Your task to perform on an android device: clear all cookies in the chrome app Image 0: 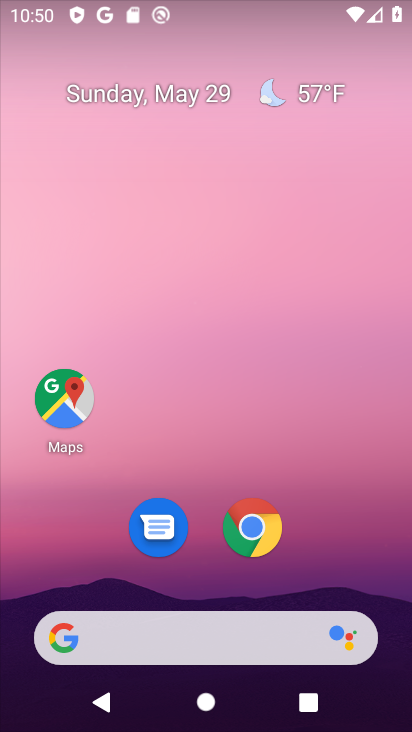
Step 0: click (254, 526)
Your task to perform on an android device: clear all cookies in the chrome app Image 1: 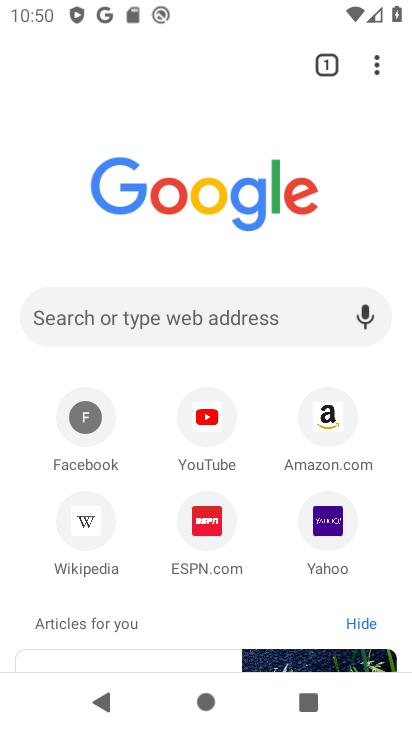
Step 1: click (377, 63)
Your task to perform on an android device: clear all cookies in the chrome app Image 2: 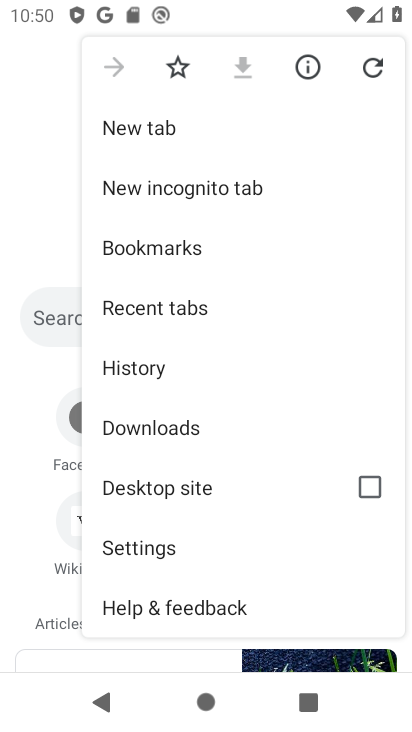
Step 2: click (165, 553)
Your task to perform on an android device: clear all cookies in the chrome app Image 3: 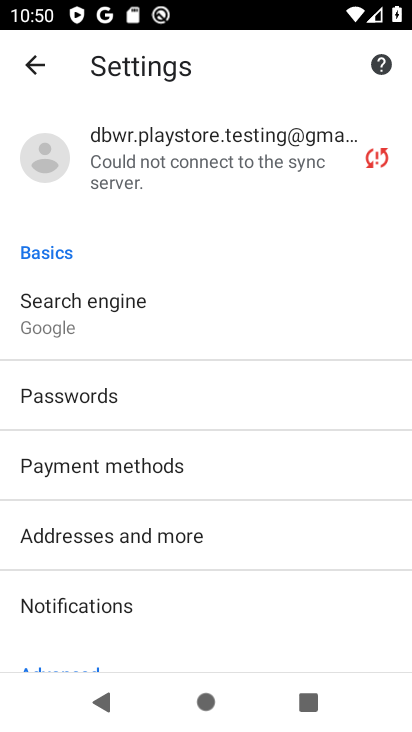
Step 3: drag from (149, 577) to (192, 470)
Your task to perform on an android device: clear all cookies in the chrome app Image 4: 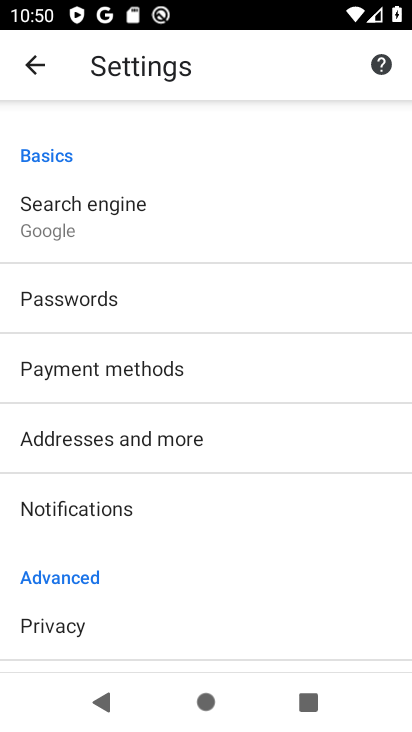
Step 4: drag from (127, 569) to (135, 407)
Your task to perform on an android device: clear all cookies in the chrome app Image 5: 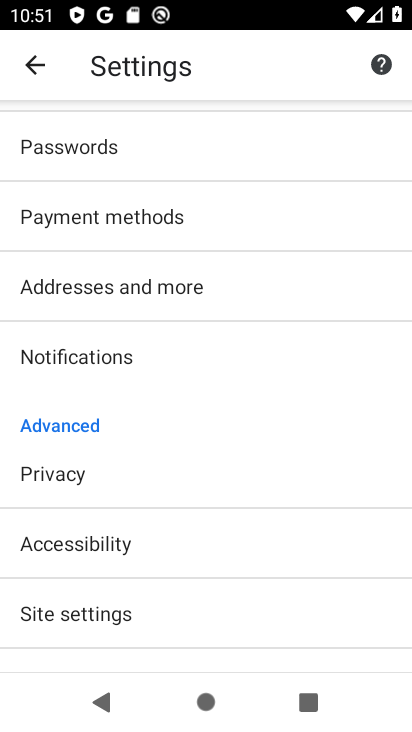
Step 5: click (71, 472)
Your task to perform on an android device: clear all cookies in the chrome app Image 6: 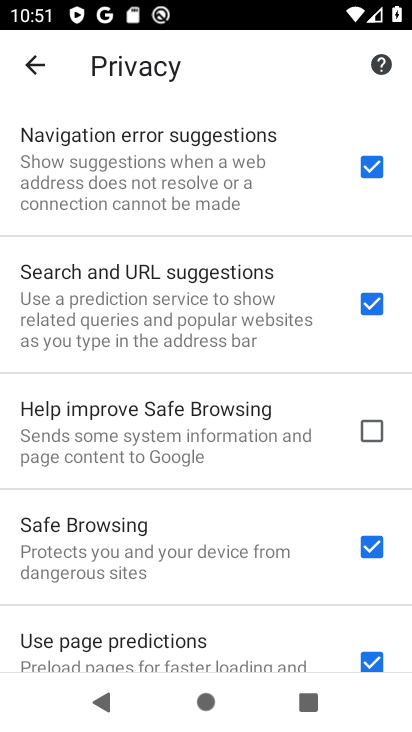
Step 6: drag from (223, 522) to (241, 410)
Your task to perform on an android device: clear all cookies in the chrome app Image 7: 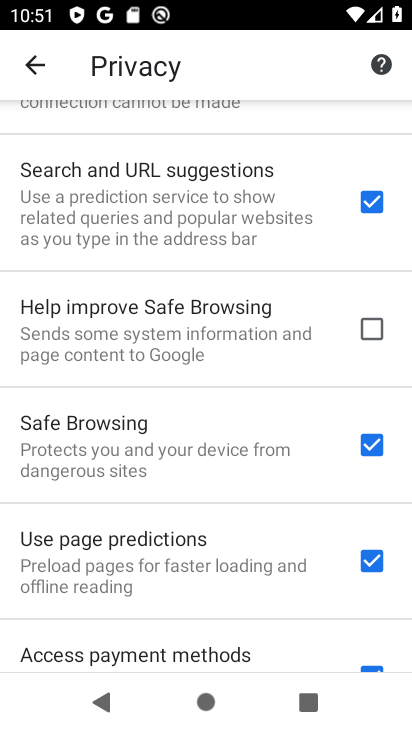
Step 7: drag from (213, 590) to (239, 488)
Your task to perform on an android device: clear all cookies in the chrome app Image 8: 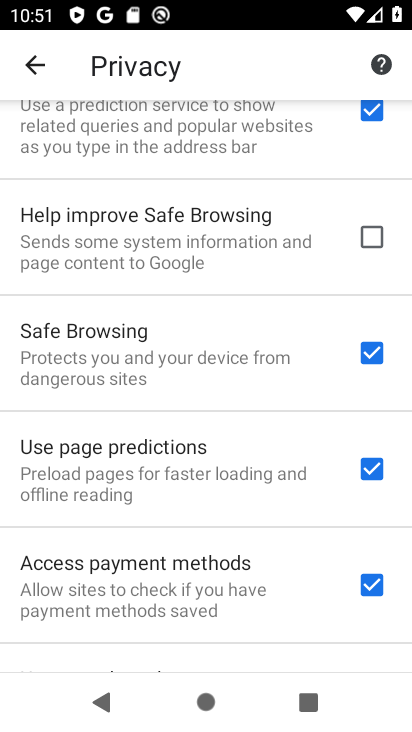
Step 8: drag from (254, 610) to (279, 484)
Your task to perform on an android device: clear all cookies in the chrome app Image 9: 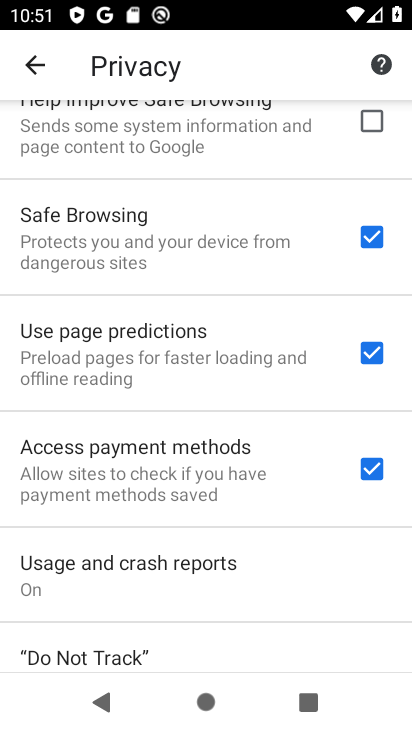
Step 9: drag from (175, 589) to (235, 481)
Your task to perform on an android device: clear all cookies in the chrome app Image 10: 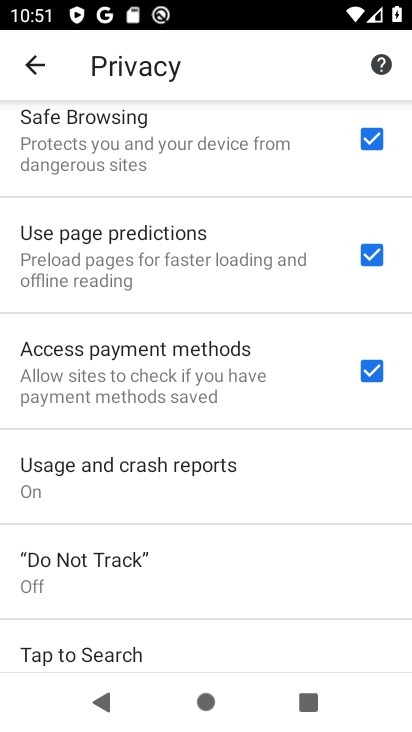
Step 10: drag from (189, 595) to (243, 506)
Your task to perform on an android device: clear all cookies in the chrome app Image 11: 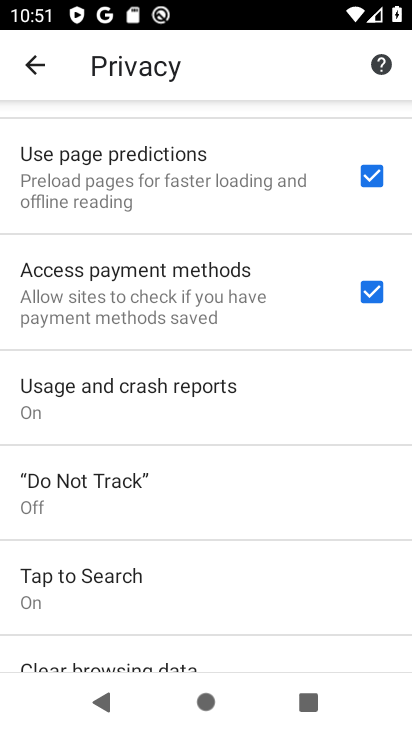
Step 11: drag from (180, 598) to (225, 488)
Your task to perform on an android device: clear all cookies in the chrome app Image 12: 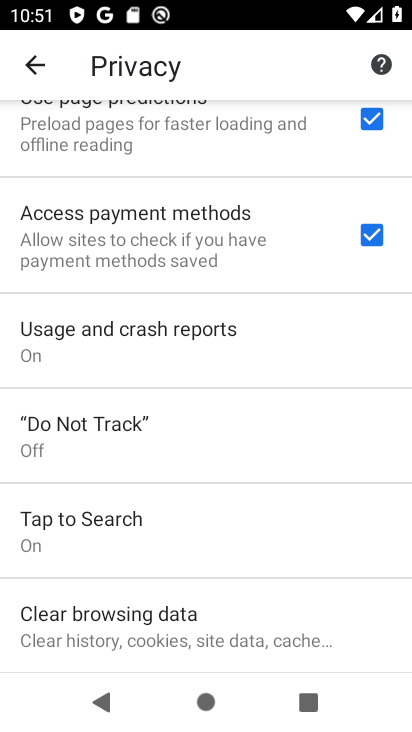
Step 12: click (147, 622)
Your task to perform on an android device: clear all cookies in the chrome app Image 13: 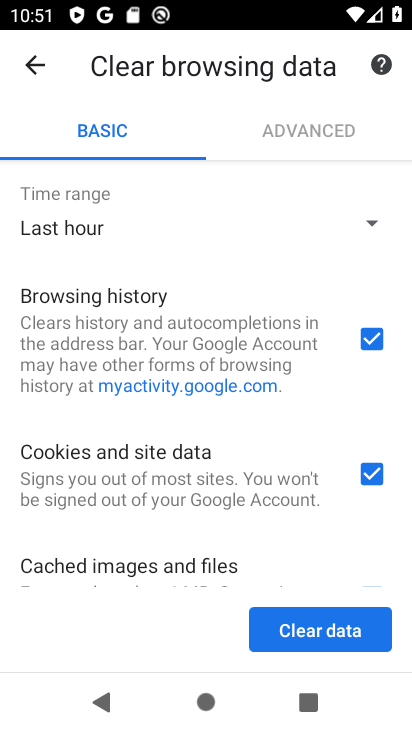
Step 13: click (296, 638)
Your task to perform on an android device: clear all cookies in the chrome app Image 14: 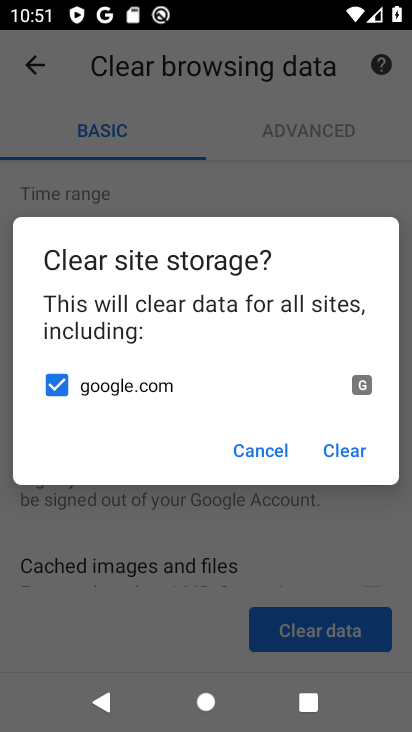
Step 14: click (341, 438)
Your task to perform on an android device: clear all cookies in the chrome app Image 15: 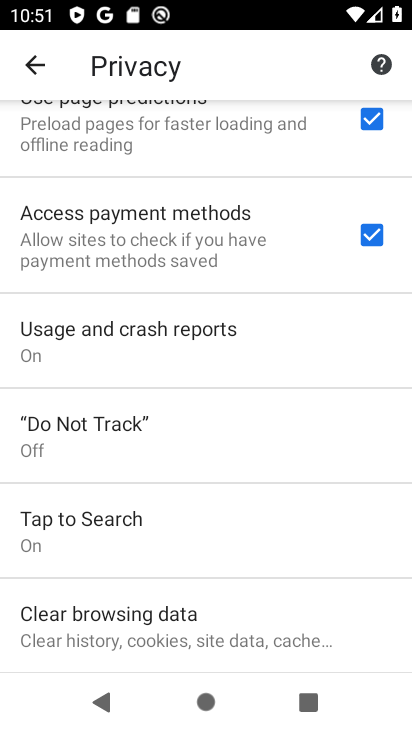
Step 15: task complete